Your task to perform on an android device: read, delete, or share a saved page in the chrome app Image 0: 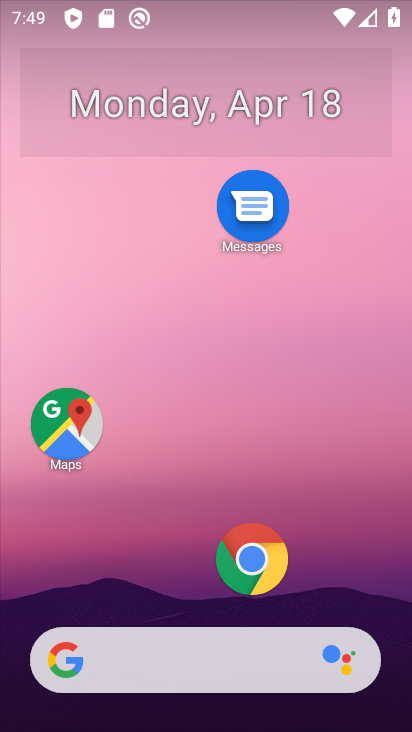
Step 0: click (250, 548)
Your task to perform on an android device: read, delete, or share a saved page in the chrome app Image 1: 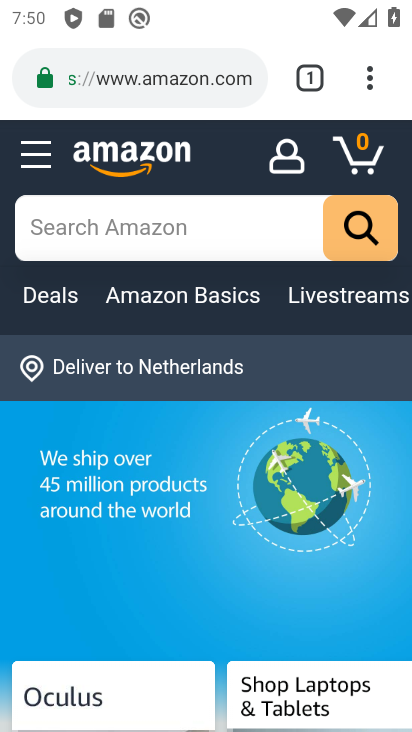
Step 1: click (371, 71)
Your task to perform on an android device: read, delete, or share a saved page in the chrome app Image 2: 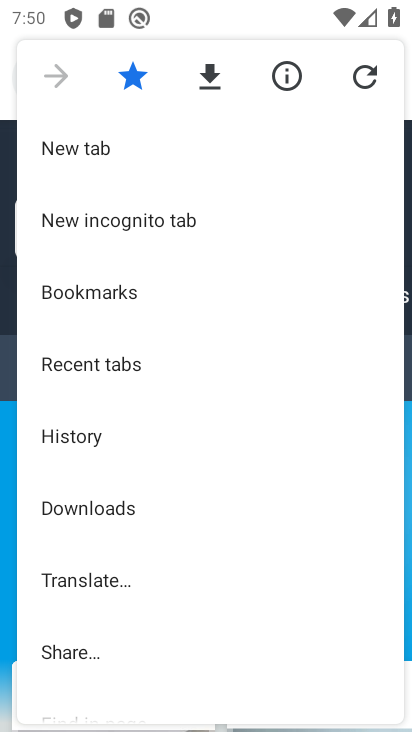
Step 2: click (130, 512)
Your task to perform on an android device: read, delete, or share a saved page in the chrome app Image 3: 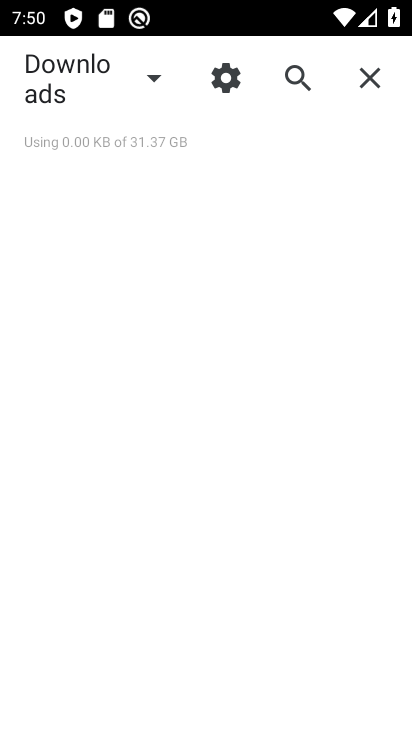
Step 3: click (150, 74)
Your task to perform on an android device: read, delete, or share a saved page in the chrome app Image 4: 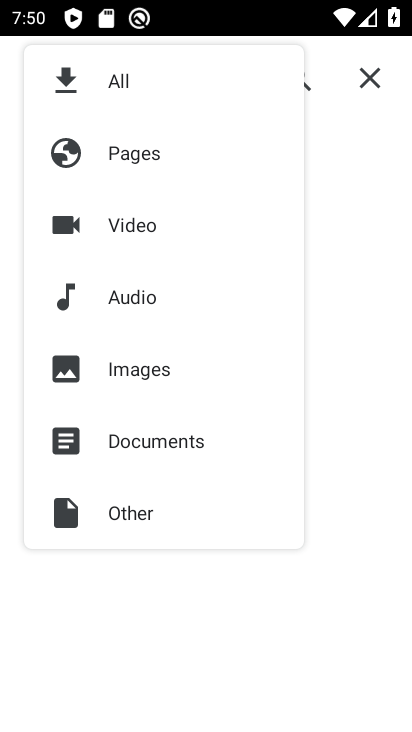
Step 4: click (143, 152)
Your task to perform on an android device: read, delete, or share a saved page in the chrome app Image 5: 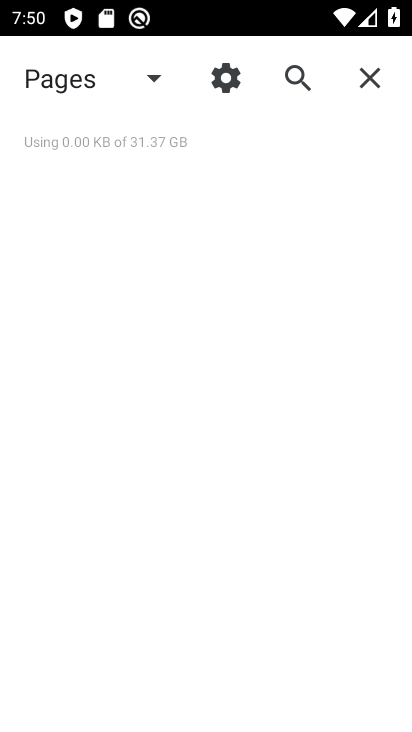
Step 5: task complete